Your task to perform on an android device: Open network settings Image 0: 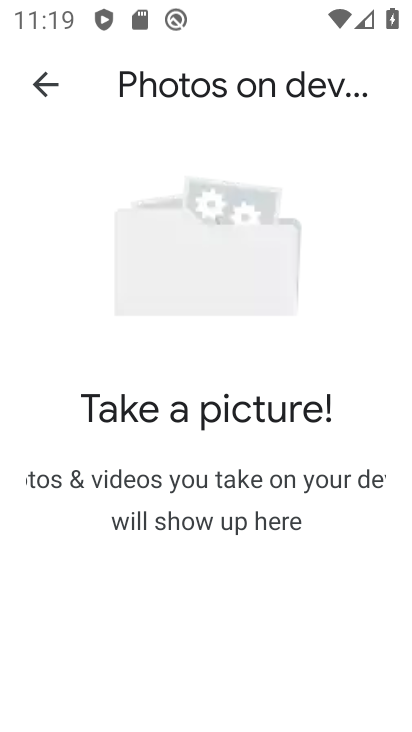
Step 0: press home button
Your task to perform on an android device: Open network settings Image 1: 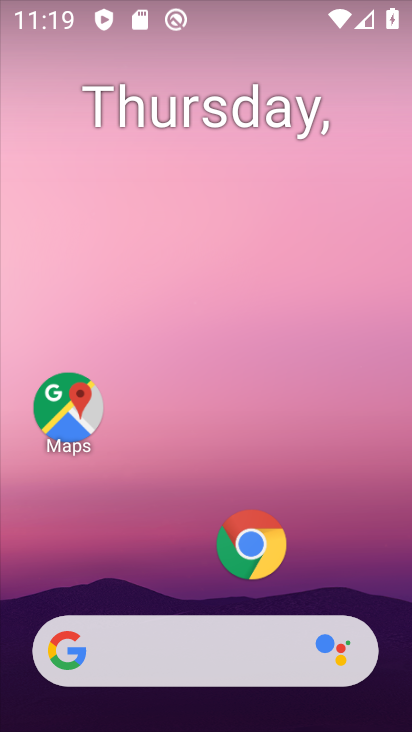
Step 1: drag from (213, 611) to (98, 5)
Your task to perform on an android device: Open network settings Image 2: 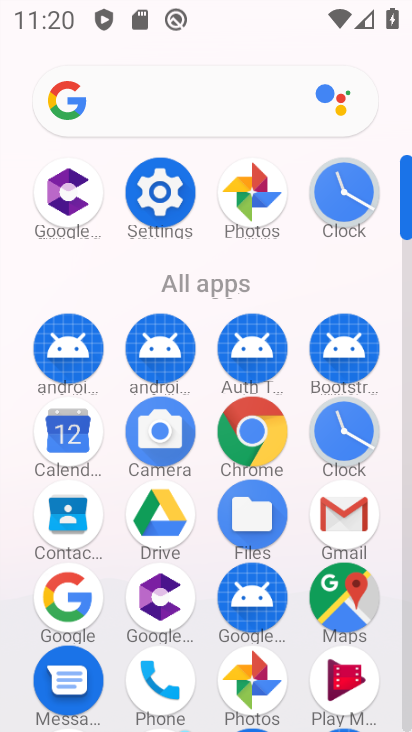
Step 2: click (165, 204)
Your task to perform on an android device: Open network settings Image 3: 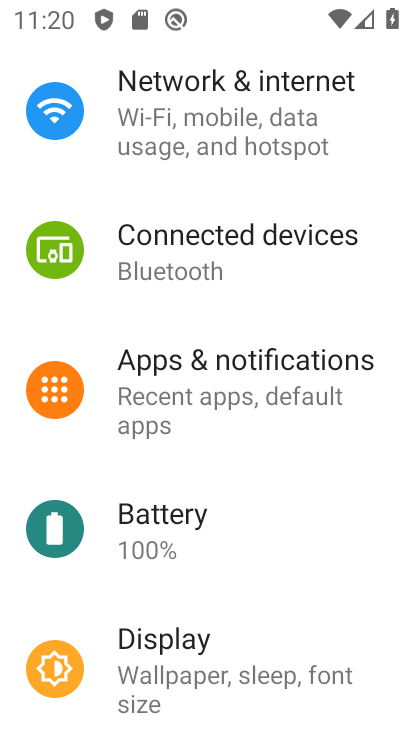
Step 3: drag from (231, 205) to (213, 469)
Your task to perform on an android device: Open network settings Image 4: 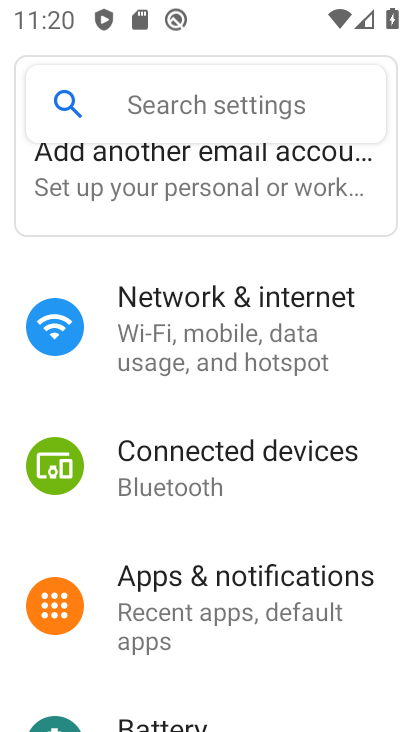
Step 4: click (199, 355)
Your task to perform on an android device: Open network settings Image 5: 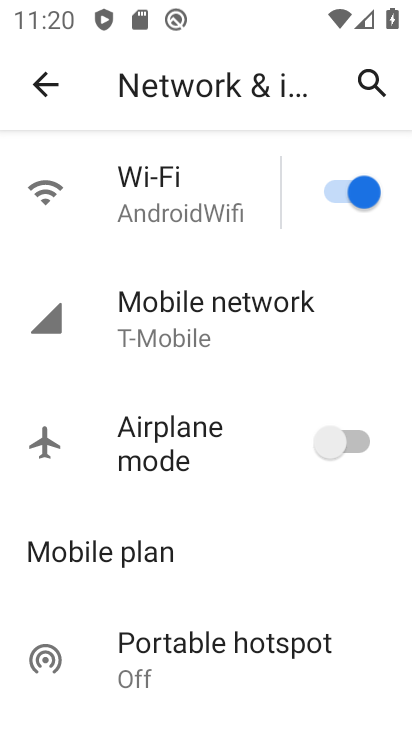
Step 5: task complete